Your task to perform on an android device: empty trash in google photos Image 0: 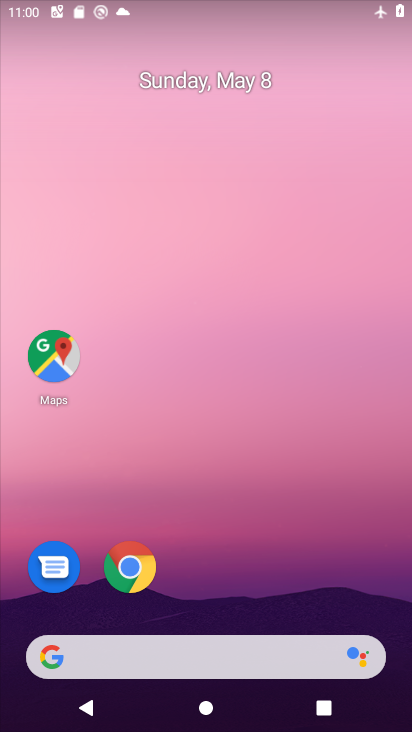
Step 0: drag from (283, 600) to (215, 94)
Your task to perform on an android device: empty trash in google photos Image 1: 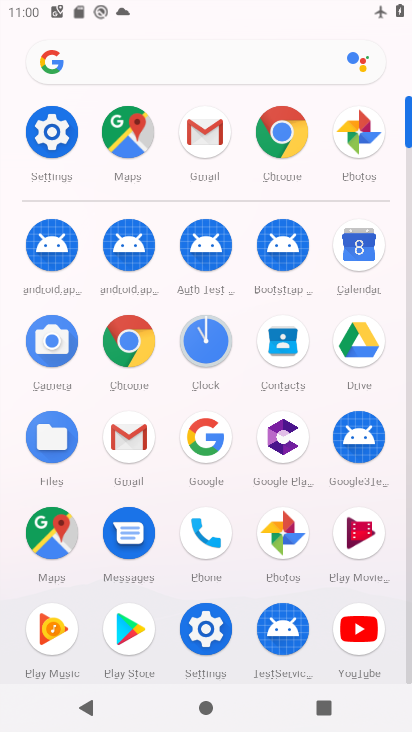
Step 1: click (371, 152)
Your task to perform on an android device: empty trash in google photos Image 2: 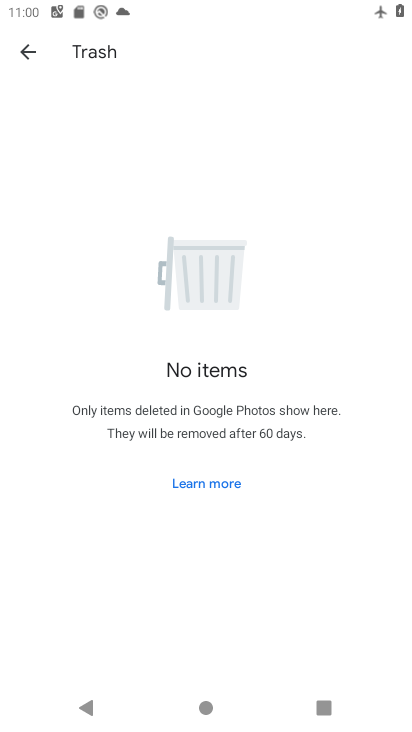
Step 2: click (33, 56)
Your task to perform on an android device: empty trash in google photos Image 3: 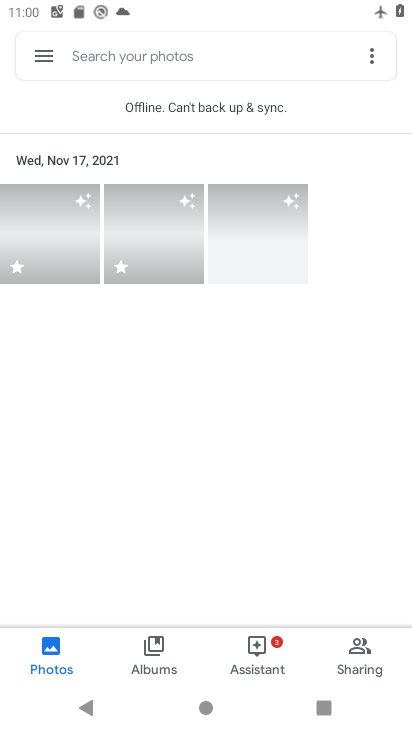
Step 3: click (52, 57)
Your task to perform on an android device: empty trash in google photos Image 4: 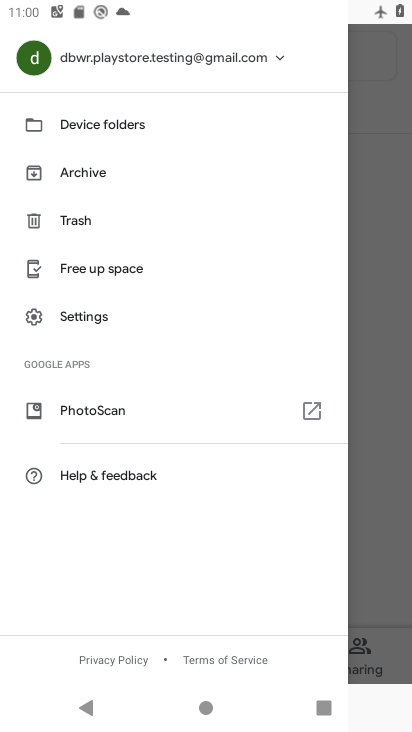
Step 4: click (92, 225)
Your task to perform on an android device: empty trash in google photos Image 5: 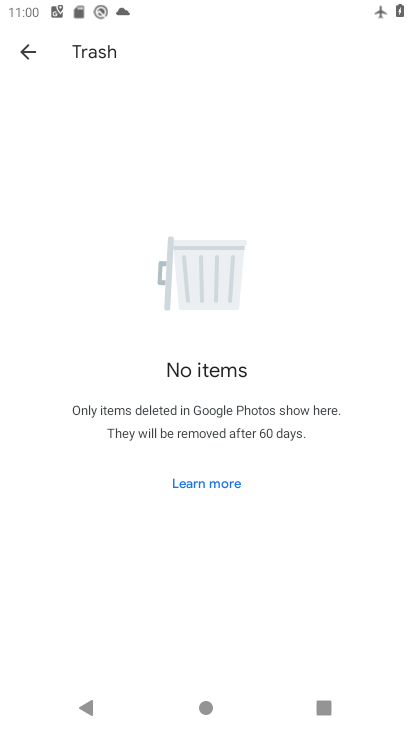
Step 5: task complete